Your task to perform on an android device: toggle notifications settings in the gmail app Image 0: 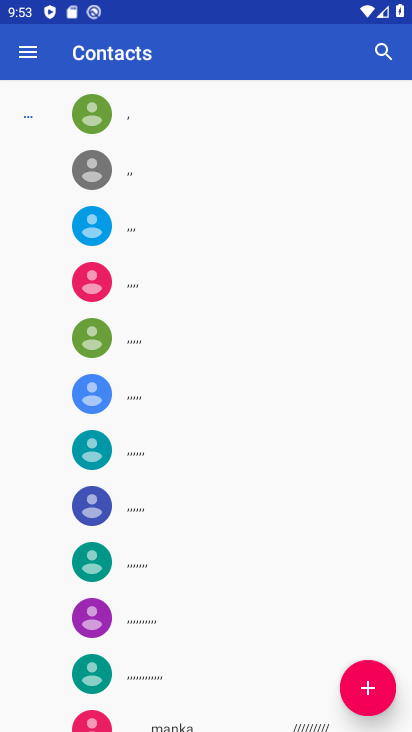
Step 0: press home button
Your task to perform on an android device: toggle notifications settings in the gmail app Image 1: 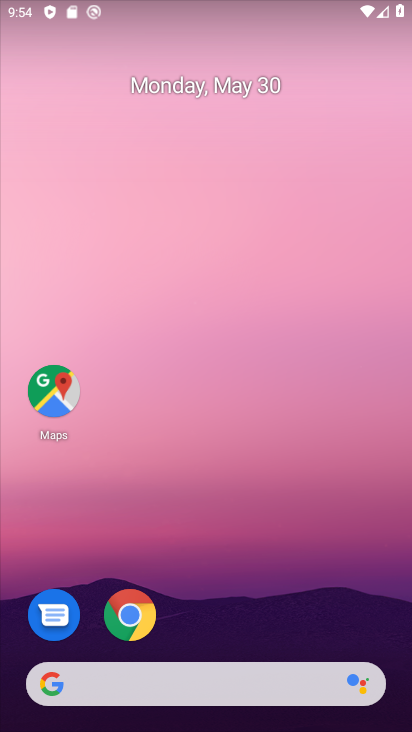
Step 1: drag from (165, 711) to (145, 126)
Your task to perform on an android device: toggle notifications settings in the gmail app Image 2: 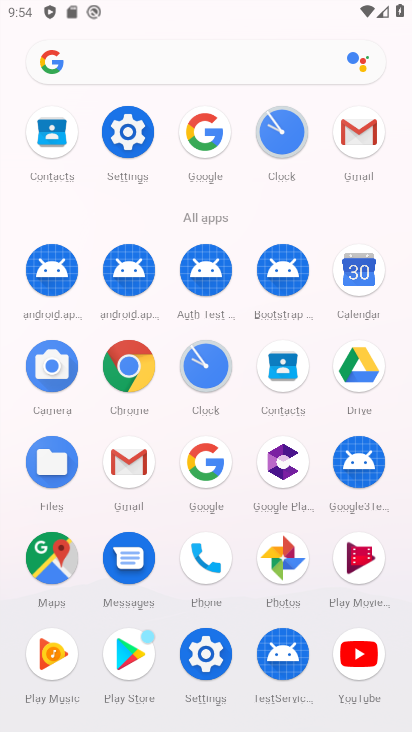
Step 2: click (125, 458)
Your task to perform on an android device: toggle notifications settings in the gmail app Image 3: 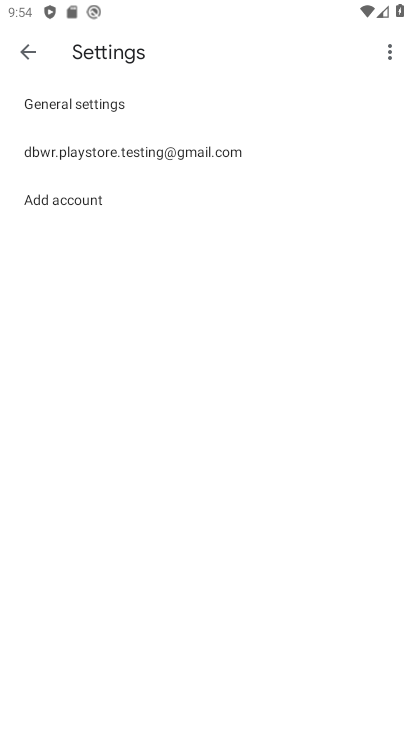
Step 3: click (126, 152)
Your task to perform on an android device: toggle notifications settings in the gmail app Image 4: 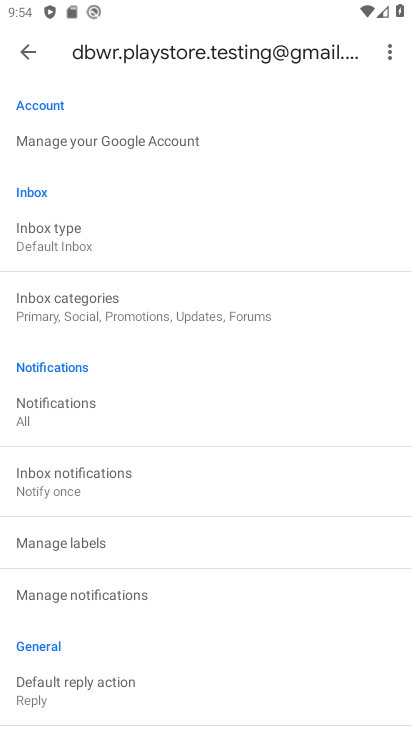
Step 4: click (54, 406)
Your task to perform on an android device: toggle notifications settings in the gmail app Image 5: 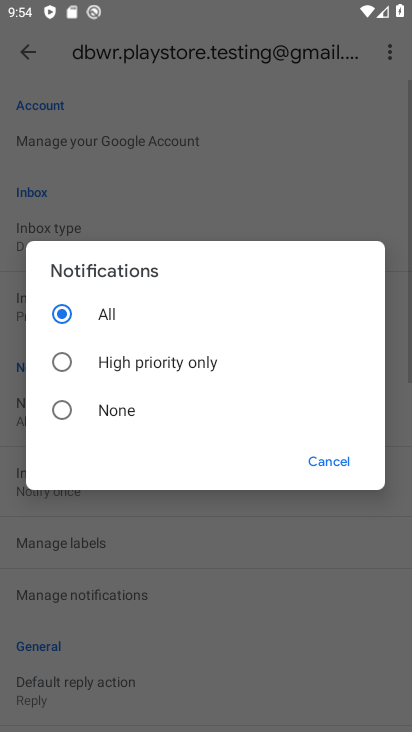
Step 5: click (60, 406)
Your task to perform on an android device: toggle notifications settings in the gmail app Image 6: 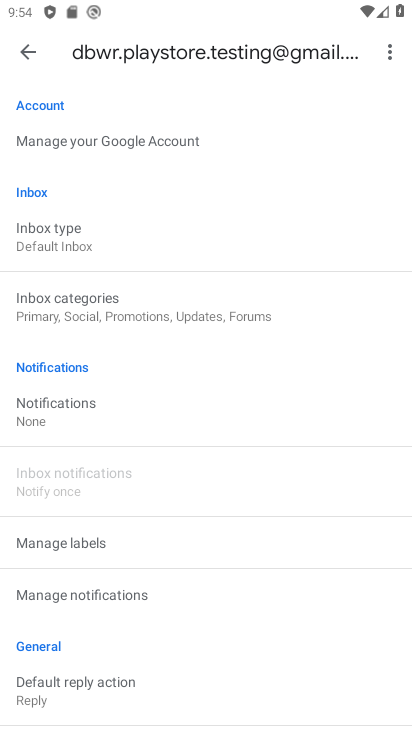
Step 6: task complete